Your task to perform on an android device: Set the phone to "Do not disturb". Image 0: 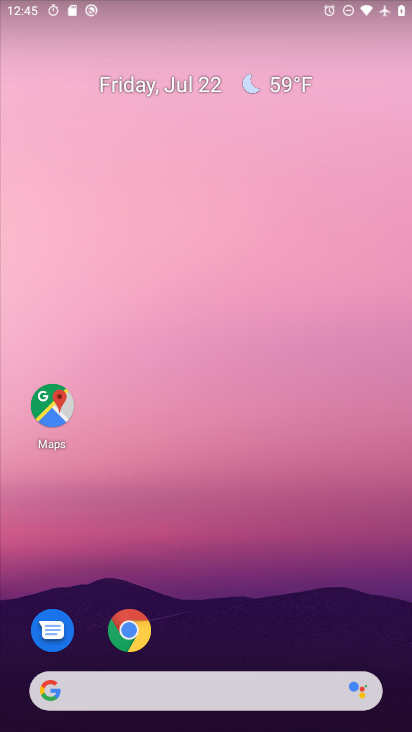
Step 0: press home button
Your task to perform on an android device: Set the phone to "Do not disturb". Image 1: 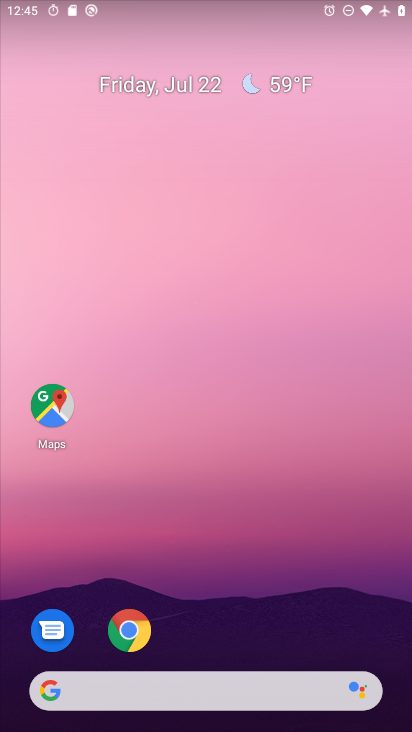
Step 1: task complete